Your task to perform on an android device: Do I have any events this weekend? Image 0: 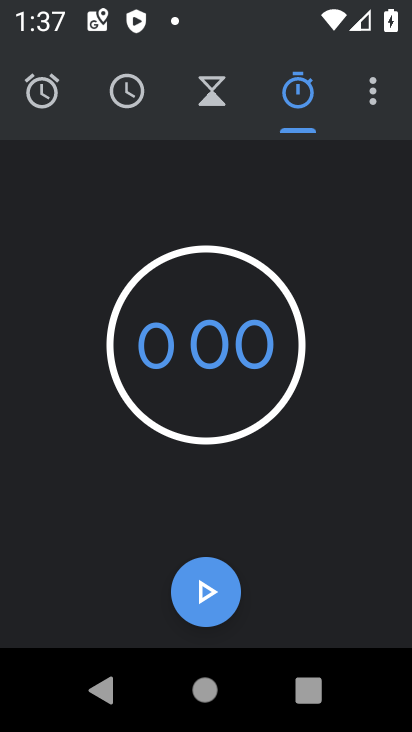
Step 0: press home button
Your task to perform on an android device: Do I have any events this weekend? Image 1: 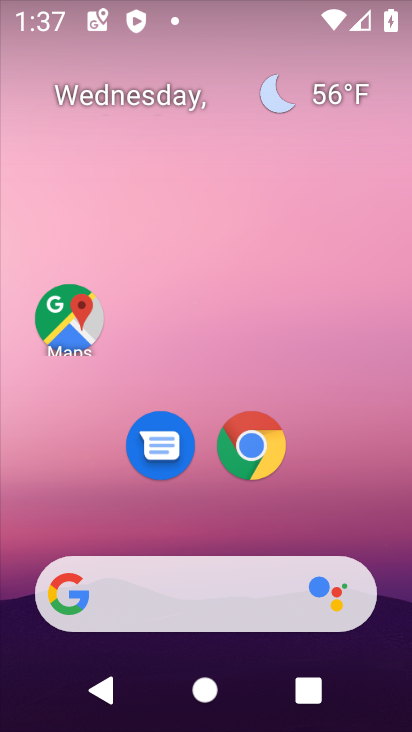
Step 1: drag from (182, 548) to (109, 44)
Your task to perform on an android device: Do I have any events this weekend? Image 2: 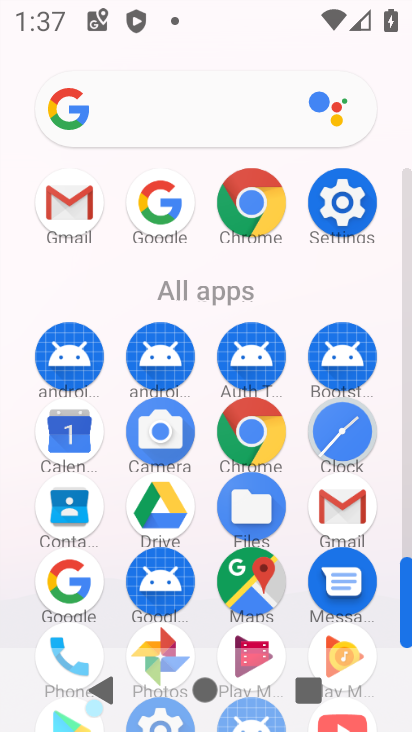
Step 2: click (67, 435)
Your task to perform on an android device: Do I have any events this weekend? Image 3: 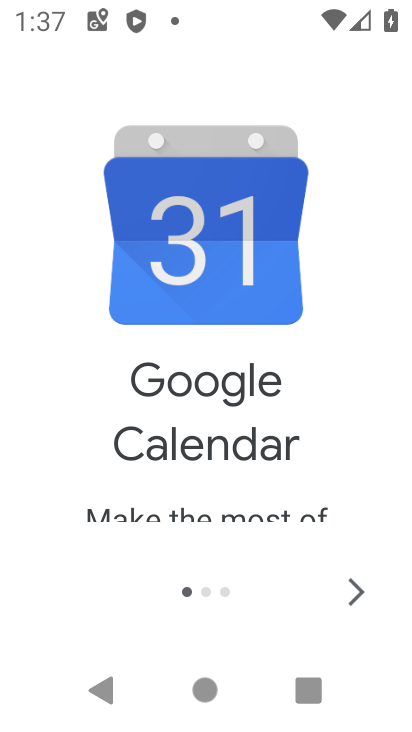
Step 3: click (355, 586)
Your task to perform on an android device: Do I have any events this weekend? Image 4: 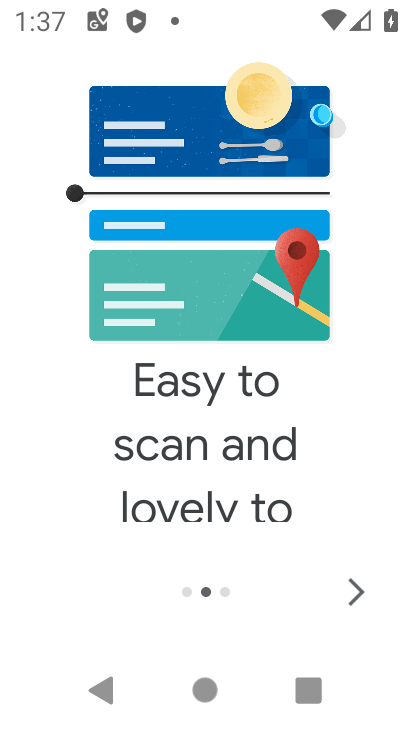
Step 4: click (355, 586)
Your task to perform on an android device: Do I have any events this weekend? Image 5: 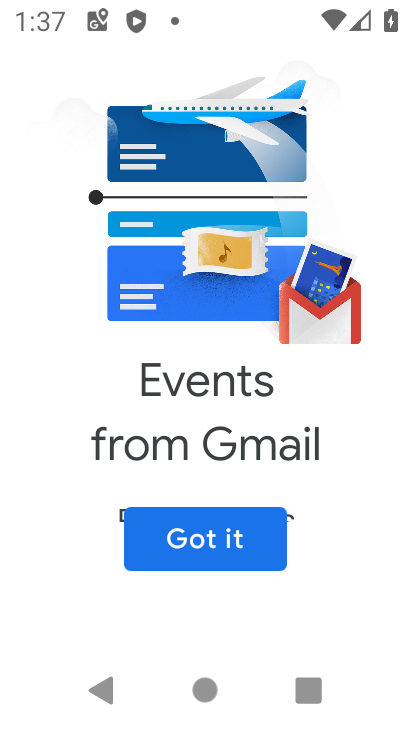
Step 5: click (250, 555)
Your task to perform on an android device: Do I have any events this weekend? Image 6: 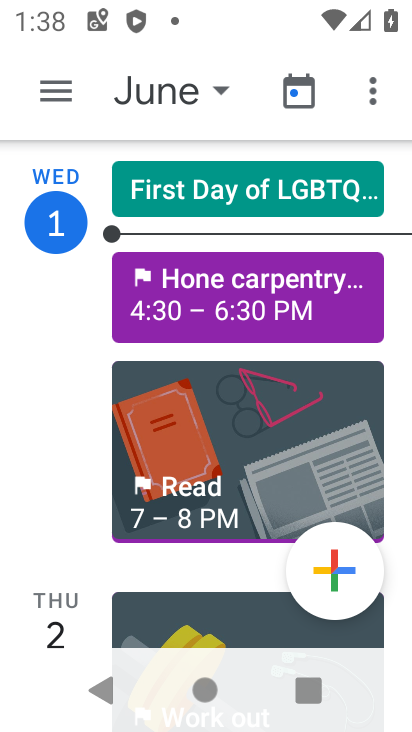
Step 6: click (52, 97)
Your task to perform on an android device: Do I have any events this weekend? Image 7: 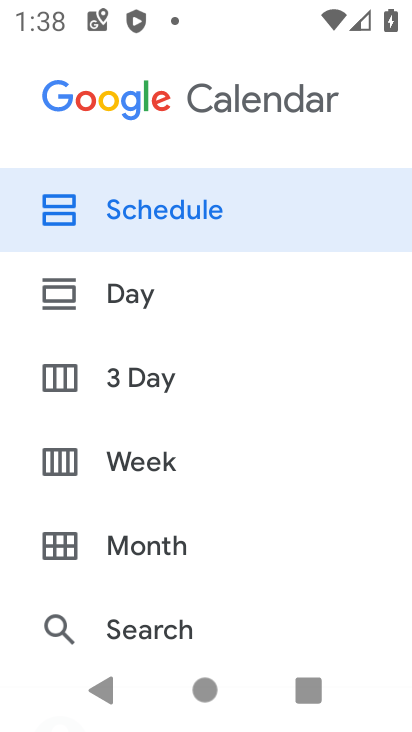
Step 7: click (160, 440)
Your task to perform on an android device: Do I have any events this weekend? Image 8: 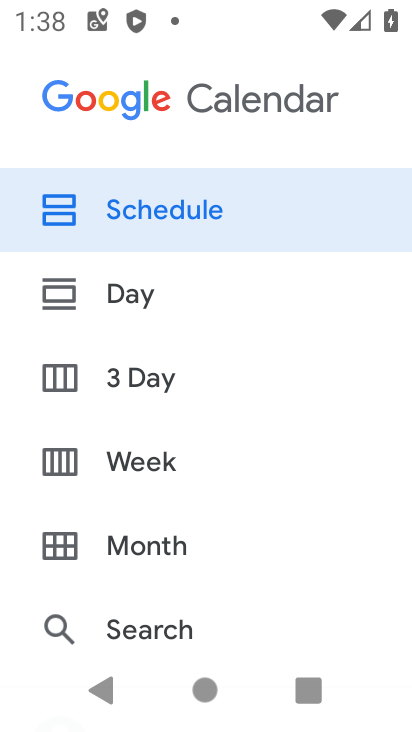
Step 8: click (152, 454)
Your task to perform on an android device: Do I have any events this weekend? Image 9: 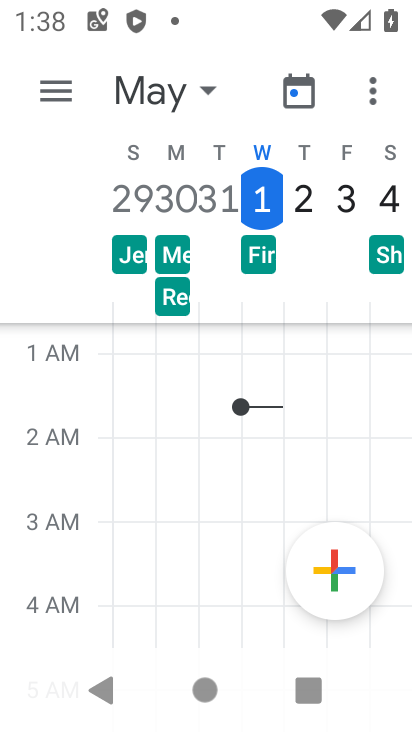
Step 9: task complete